Your task to perform on an android device: Open Chrome and go to the settings page Image 0: 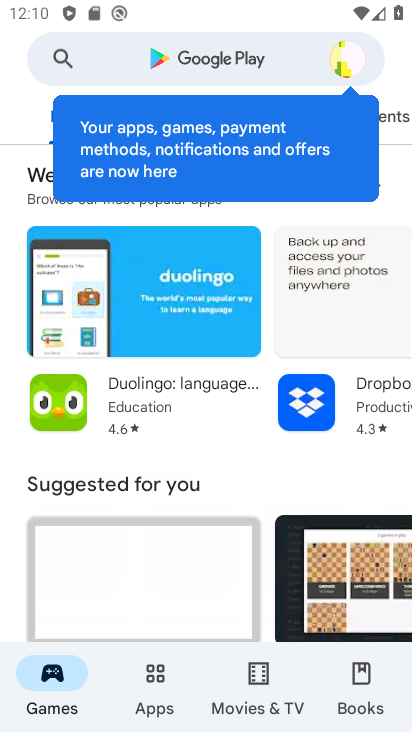
Step 0: press home button
Your task to perform on an android device: Open Chrome and go to the settings page Image 1: 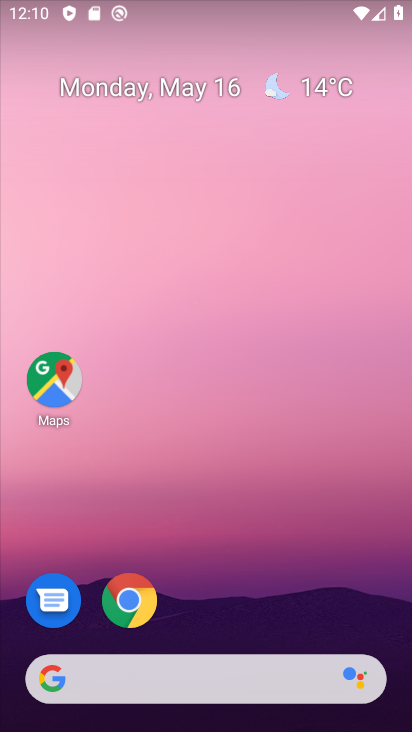
Step 1: drag from (224, 623) to (242, 99)
Your task to perform on an android device: Open Chrome and go to the settings page Image 2: 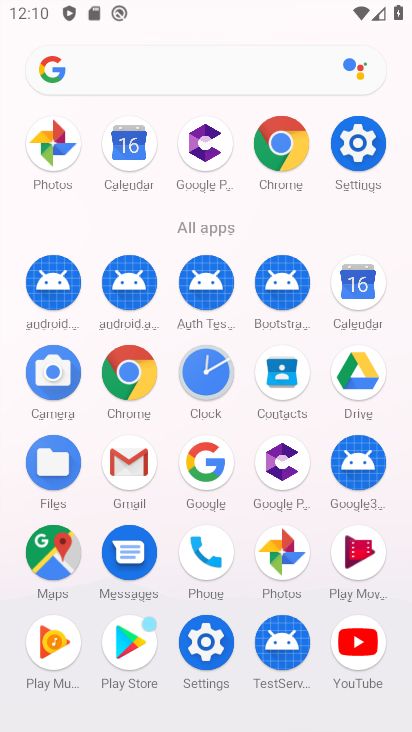
Step 2: click (355, 135)
Your task to perform on an android device: Open Chrome and go to the settings page Image 3: 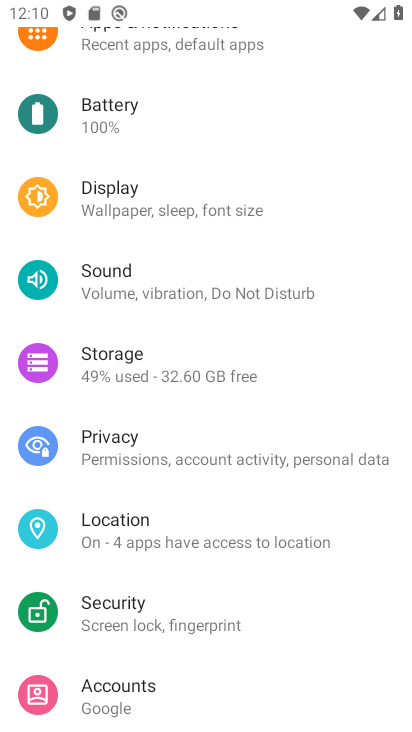
Step 3: press home button
Your task to perform on an android device: Open Chrome and go to the settings page Image 4: 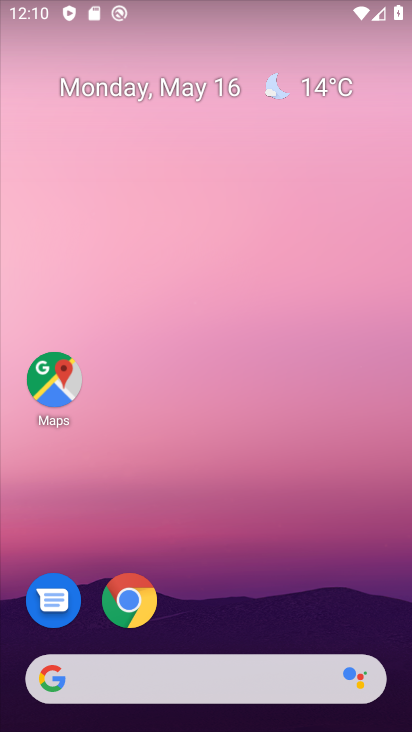
Step 4: drag from (225, 632) to (225, 61)
Your task to perform on an android device: Open Chrome and go to the settings page Image 5: 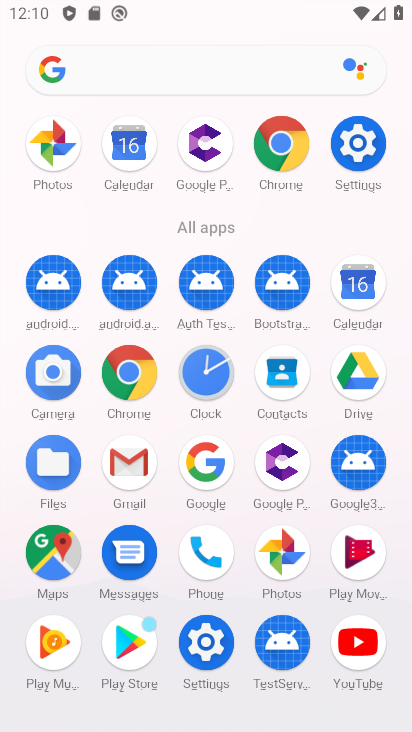
Step 5: click (281, 145)
Your task to perform on an android device: Open Chrome and go to the settings page Image 6: 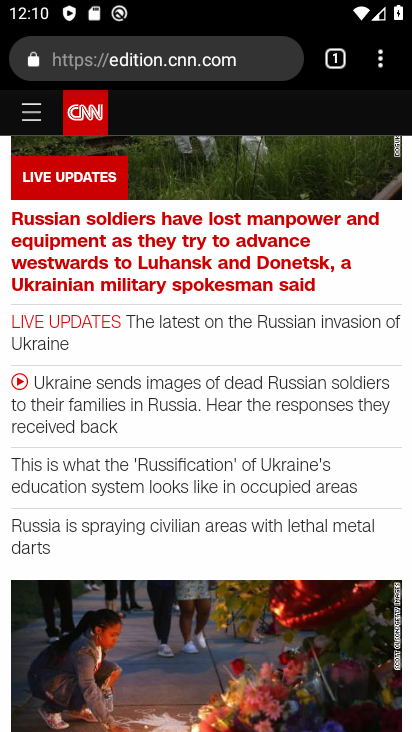
Step 6: click (374, 57)
Your task to perform on an android device: Open Chrome and go to the settings page Image 7: 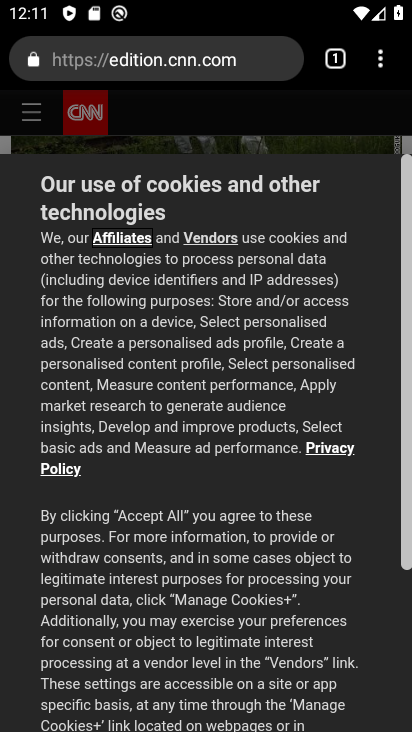
Step 7: drag from (232, 664) to (252, 161)
Your task to perform on an android device: Open Chrome and go to the settings page Image 8: 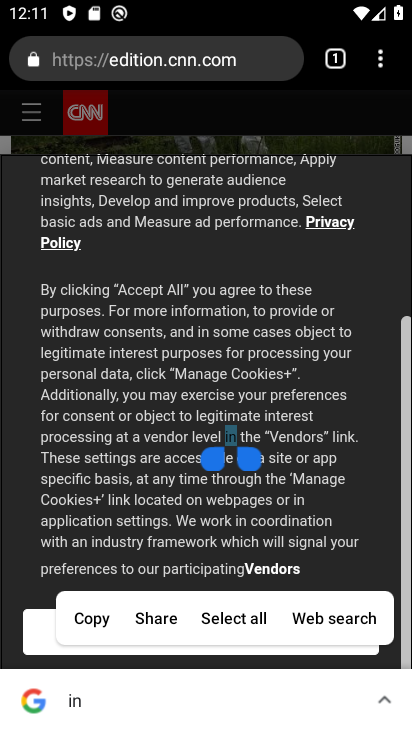
Step 8: click (362, 472)
Your task to perform on an android device: Open Chrome and go to the settings page Image 9: 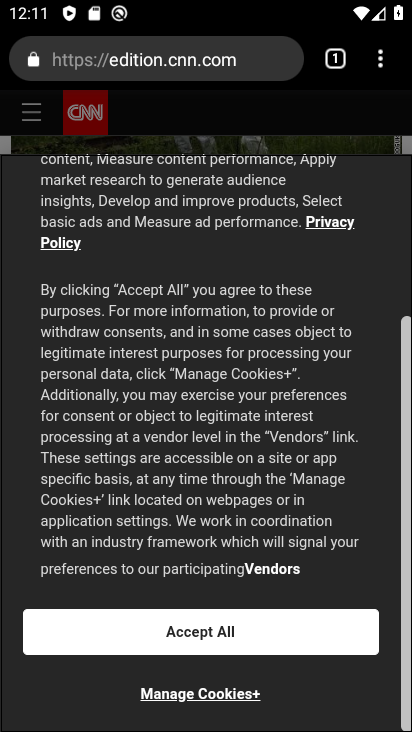
Step 9: click (210, 632)
Your task to perform on an android device: Open Chrome and go to the settings page Image 10: 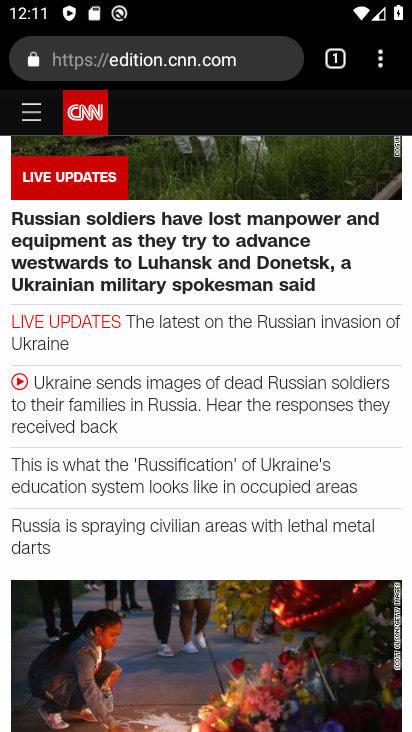
Step 10: task complete